Your task to perform on an android device: turn off priority inbox in the gmail app Image 0: 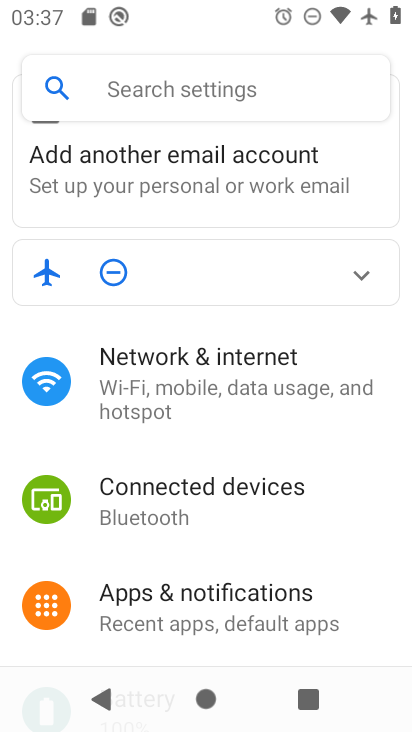
Step 0: press home button
Your task to perform on an android device: turn off priority inbox in the gmail app Image 1: 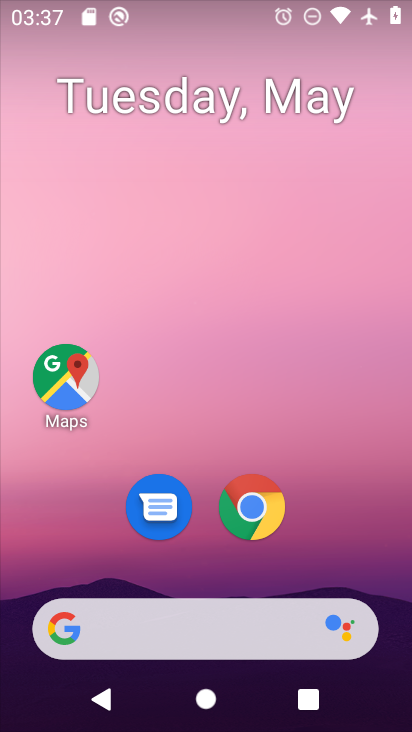
Step 1: drag from (264, 564) to (274, 166)
Your task to perform on an android device: turn off priority inbox in the gmail app Image 2: 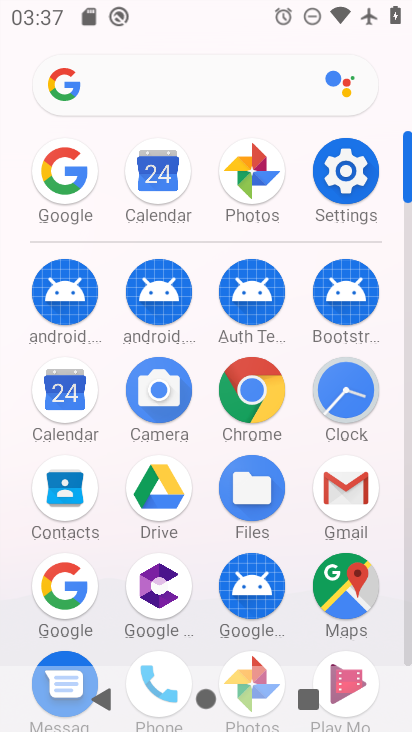
Step 2: click (338, 503)
Your task to perform on an android device: turn off priority inbox in the gmail app Image 3: 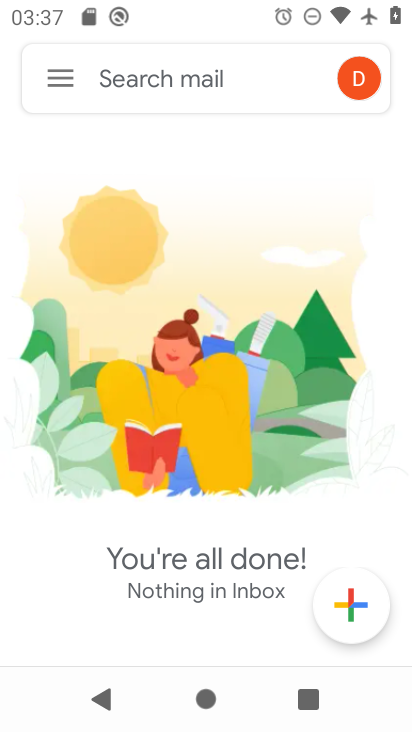
Step 3: click (65, 90)
Your task to perform on an android device: turn off priority inbox in the gmail app Image 4: 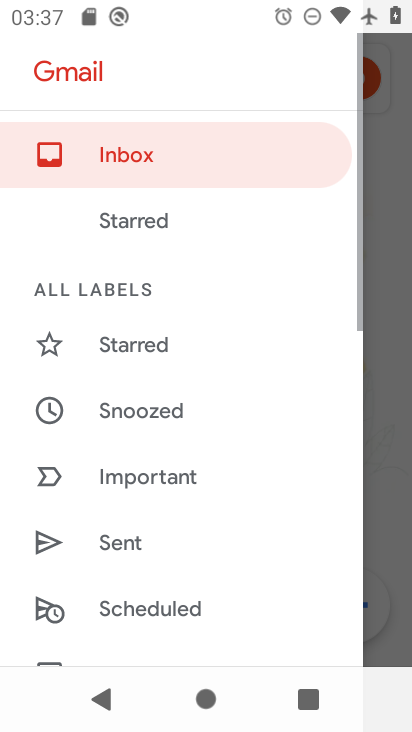
Step 4: drag from (183, 553) to (183, 172)
Your task to perform on an android device: turn off priority inbox in the gmail app Image 5: 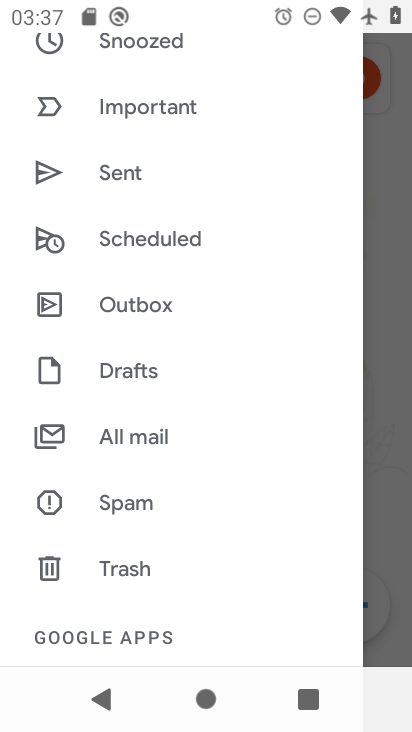
Step 5: drag from (204, 561) to (219, 193)
Your task to perform on an android device: turn off priority inbox in the gmail app Image 6: 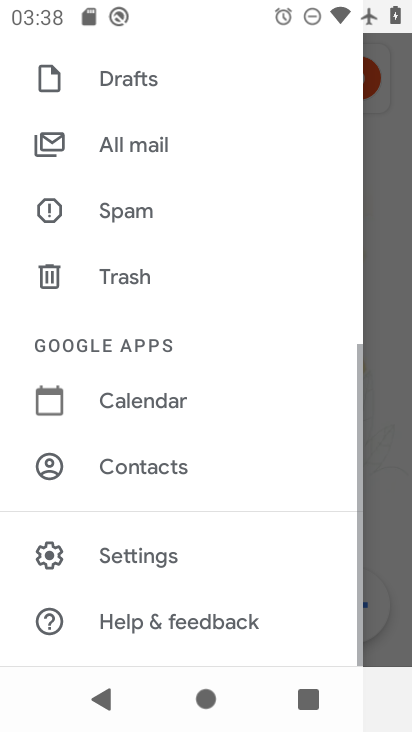
Step 6: click (198, 554)
Your task to perform on an android device: turn off priority inbox in the gmail app Image 7: 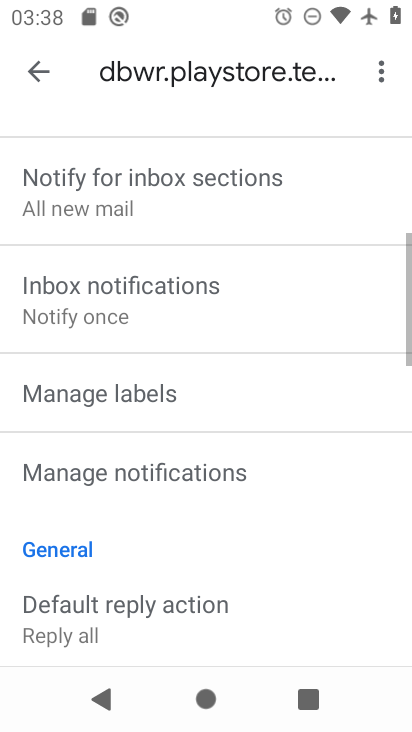
Step 7: drag from (209, 549) to (222, 333)
Your task to perform on an android device: turn off priority inbox in the gmail app Image 8: 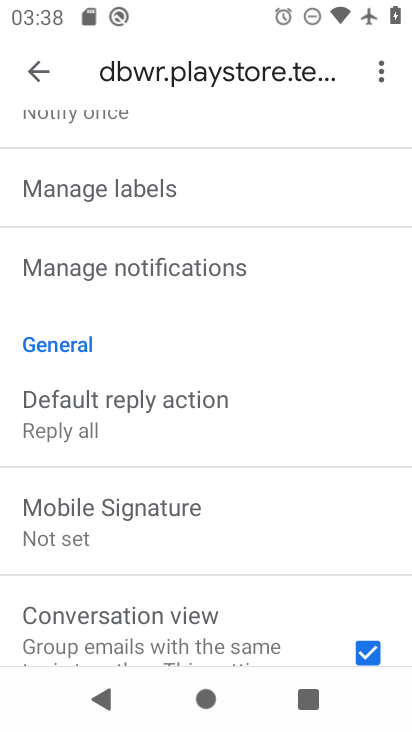
Step 8: drag from (184, 260) to (188, 540)
Your task to perform on an android device: turn off priority inbox in the gmail app Image 9: 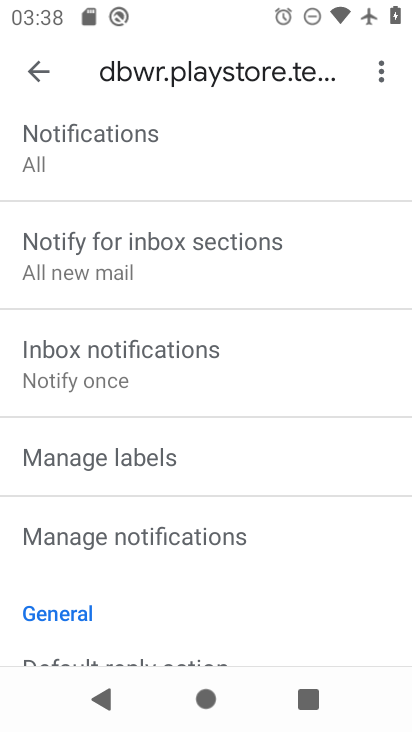
Step 9: drag from (172, 209) to (225, 580)
Your task to perform on an android device: turn off priority inbox in the gmail app Image 10: 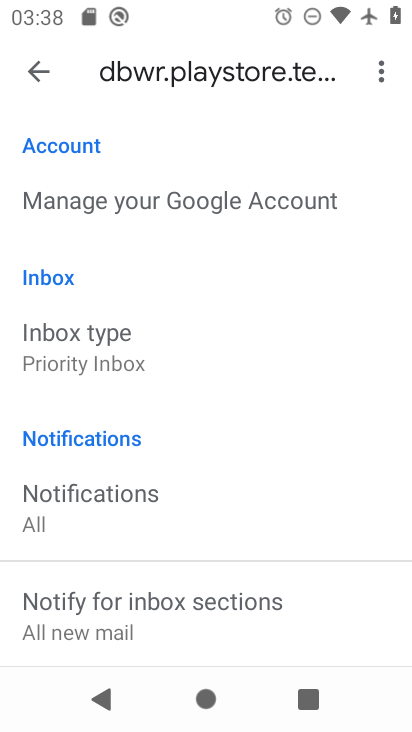
Step 10: drag from (165, 263) to (204, 563)
Your task to perform on an android device: turn off priority inbox in the gmail app Image 11: 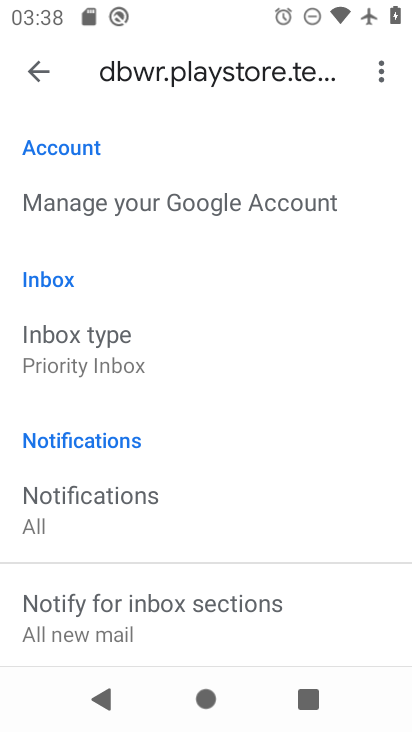
Step 11: click (117, 357)
Your task to perform on an android device: turn off priority inbox in the gmail app Image 12: 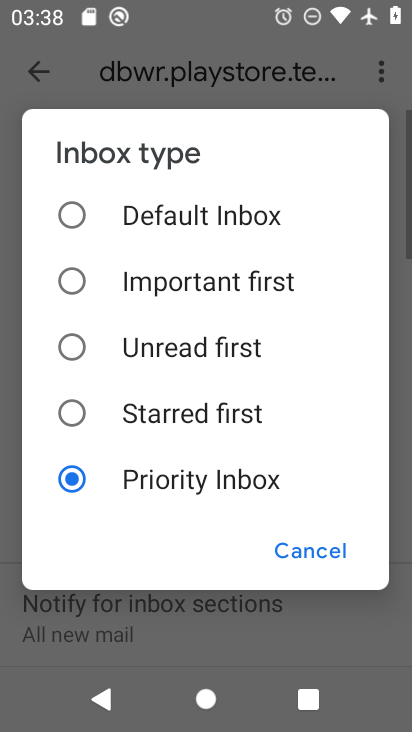
Step 12: click (103, 214)
Your task to perform on an android device: turn off priority inbox in the gmail app Image 13: 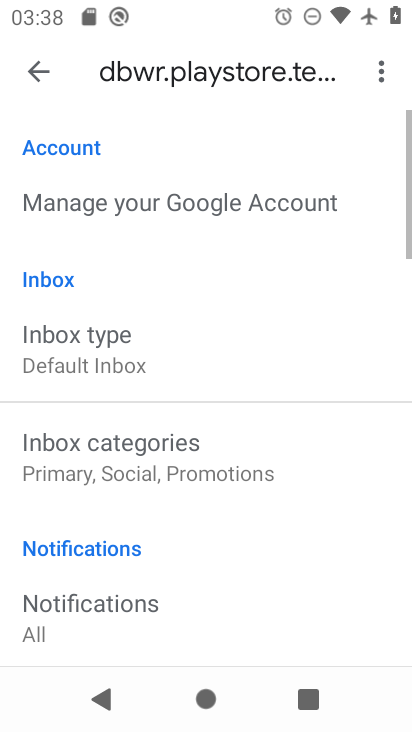
Step 13: task complete